Your task to perform on an android device: Open internet settings Image 0: 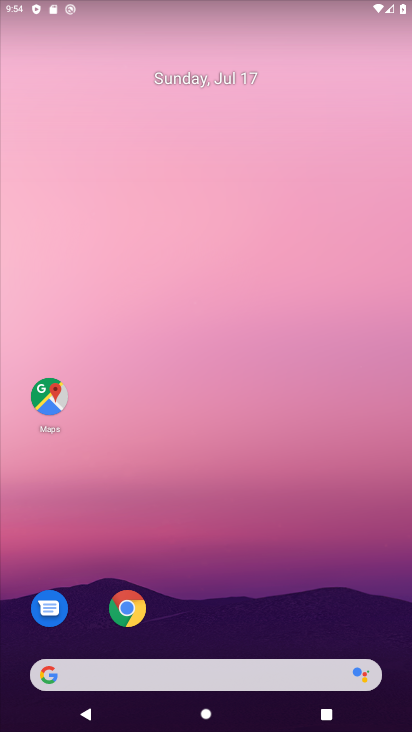
Step 0: drag from (309, 614) to (234, 136)
Your task to perform on an android device: Open internet settings Image 1: 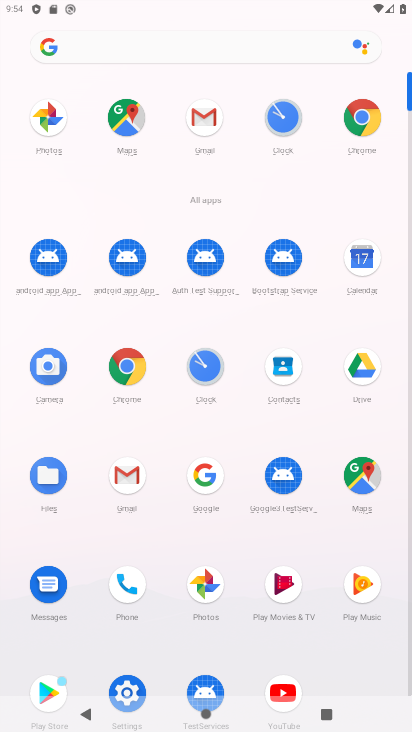
Step 1: click (127, 686)
Your task to perform on an android device: Open internet settings Image 2: 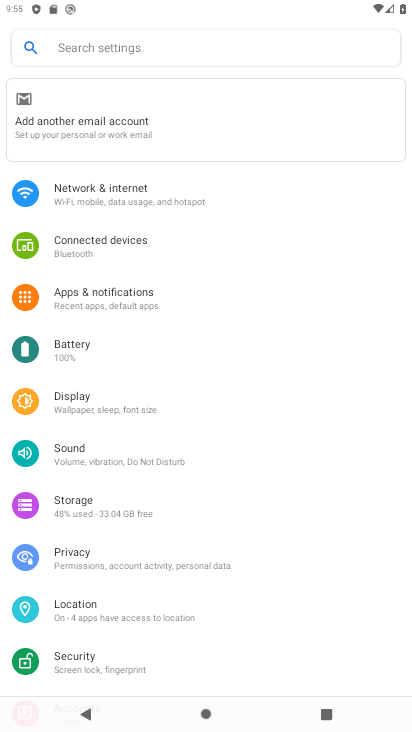
Step 2: click (130, 193)
Your task to perform on an android device: Open internet settings Image 3: 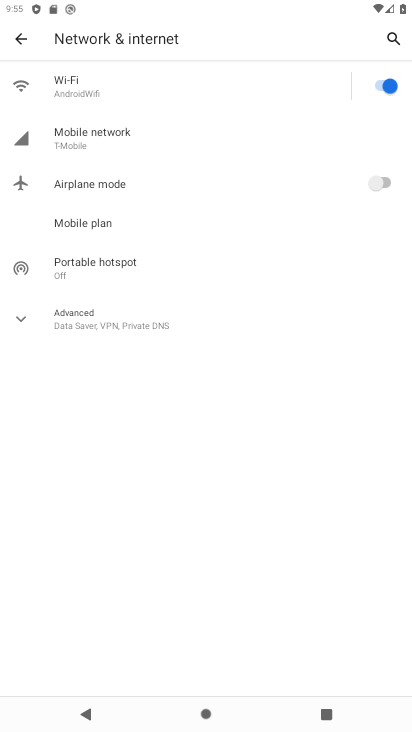
Step 3: task complete